Your task to perform on an android device: Go to Google maps Image 0: 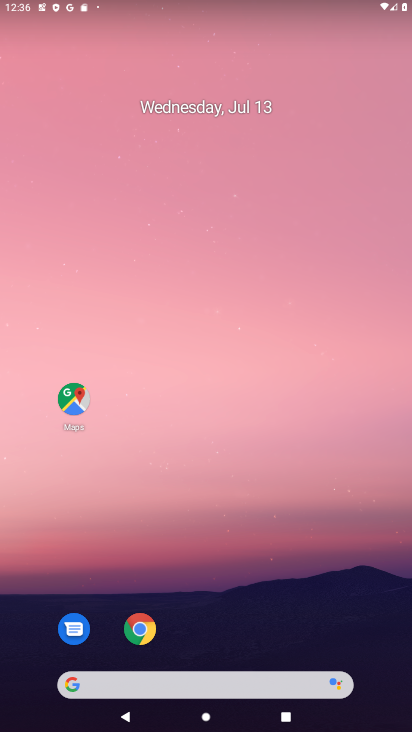
Step 0: drag from (240, 617) to (240, 109)
Your task to perform on an android device: Go to Google maps Image 1: 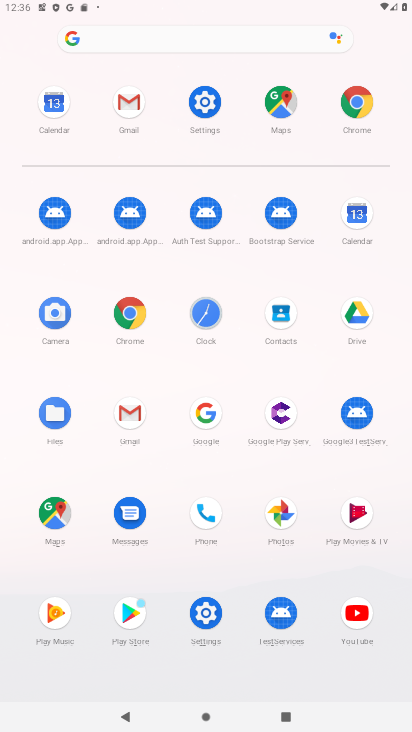
Step 1: click (51, 513)
Your task to perform on an android device: Go to Google maps Image 2: 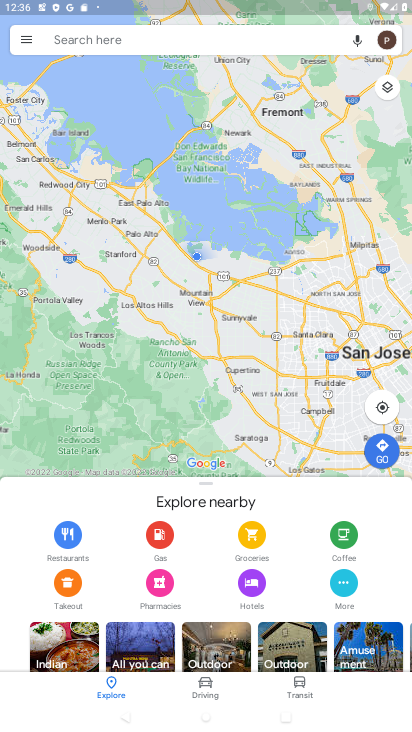
Step 2: task complete